Your task to perform on an android device: Open the calendar and show me this week's events Image 0: 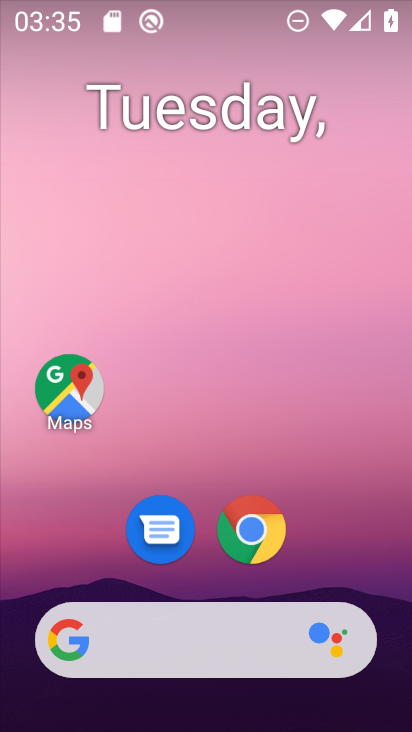
Step 0: drag from (316, 523) to (301, 217)
Your task to perform on an android device: Open the calendar and show me this week's events Image 1: 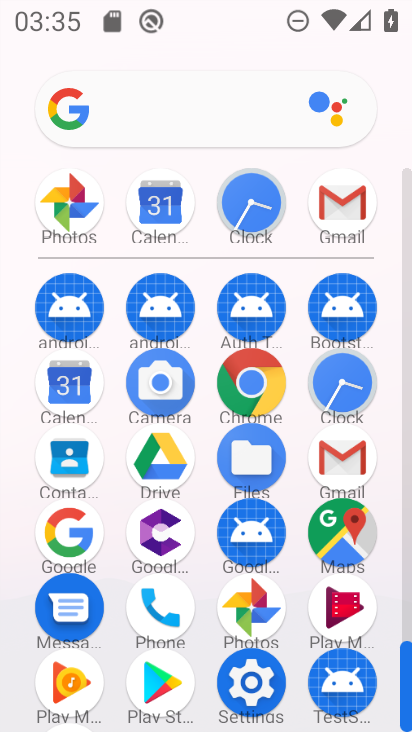
Step 1: click (60, 381)
Your task to perform on an android device: Open the calendar and show me this week's events Image 2: 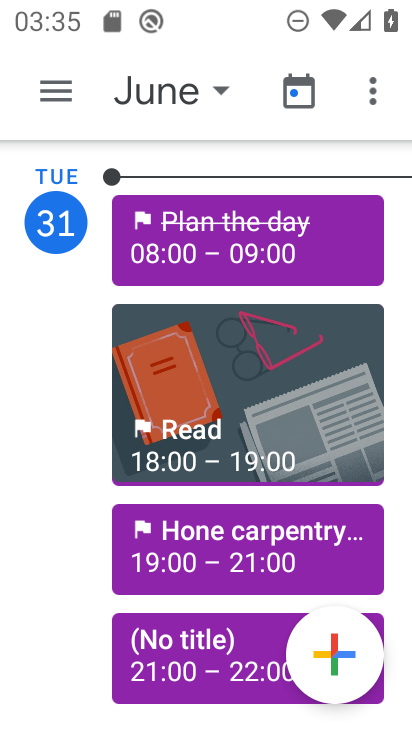
Step 2: click (38, 83)
Your task to perform on an android device: Open the calendar and show me this week's events Image 3: 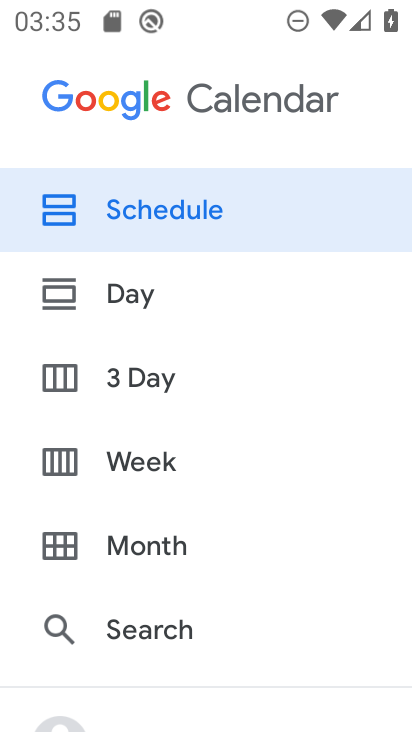
Step 3: click (123, 467)
Your task to perform on an android device: Open the calendar and show me this week's events Image 4: 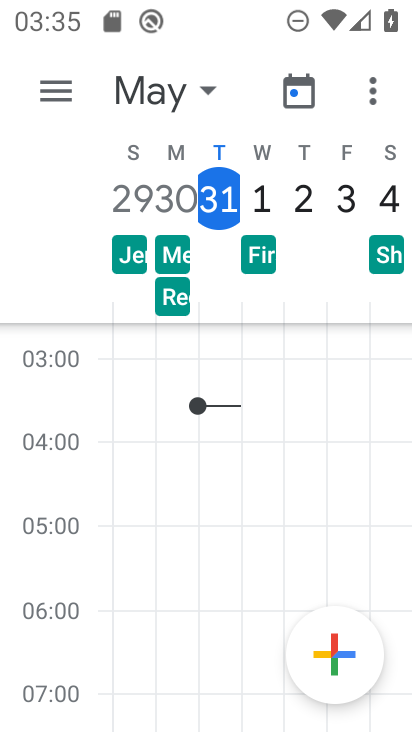
Step 4: task complete